Your task to perform on an android device: Search for "dell alienware" on ebay, select the first entry, add it to the cart, then select checkout. Image 0: 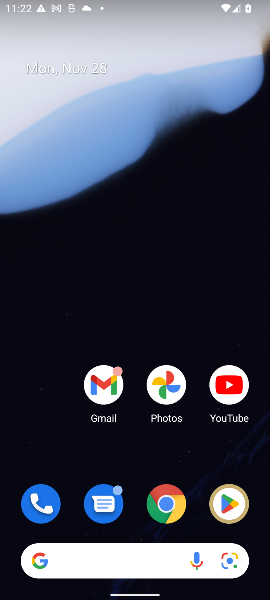
Step 0: click (166, 512)
Your task to perform on an android device: Search for "dell alienware" on ebay, select the first entry, add it to the cart, then select checkout. Image 1: 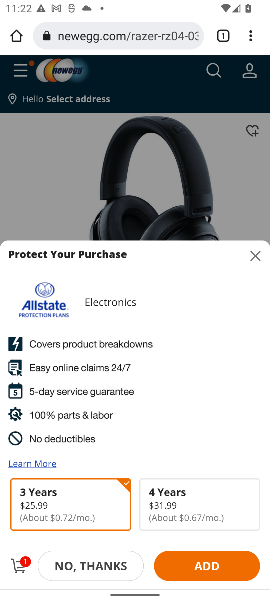
Step 1: click (107, 34)
Your task to perform on an android device: Search for "dell alienware" on ebay, select the first entry, add it to the cart, then select checkout. Image 2: 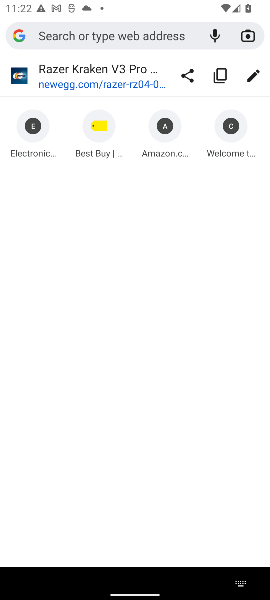
Step 2: type "ebay.com"
Your task to perform on an android device: Search for "dell alienware" on ebay, select the first entry, add it to the cart, then select checkout. Image 3: 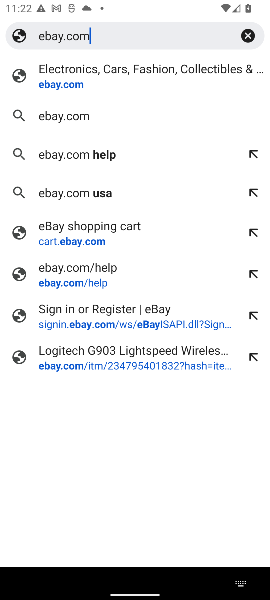
Step 3: click (63, 82)
Your task to perform on an android device: Search for "dell alienware" on ebay, select the first entry, add it to the cart, then select checkout. Image 4: 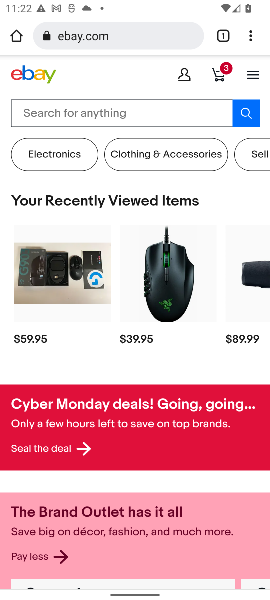
Step 4: click (35, 114)
Your task to perform on an android device: Search for "dell alienware" on ebay, select the first entry, add it to the cart, then select checkout. Image 5: 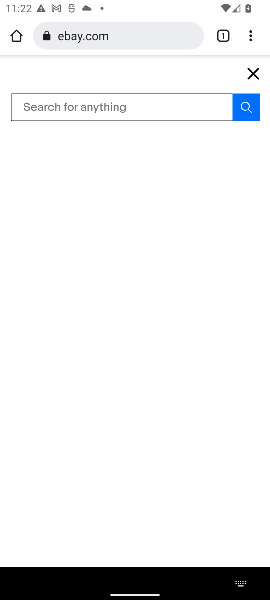
Step 5: type "dell alienware"
Your task to perform on an android device: Search for "dell alienware" on ebay, select the first entry, add it to the cart, then select checkout. Image 6: 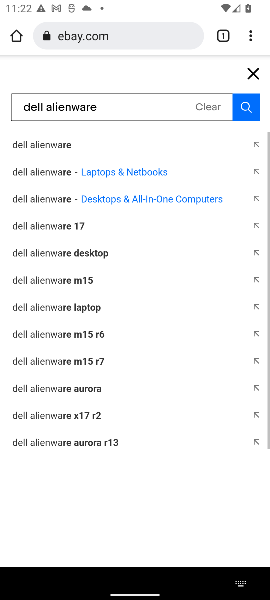
Step 6: click (34, 149)
Your task to perform on an android device: Search for "dell alienware" on ebay, select the first entry, add it to the cart, then select checkout. Image 7: 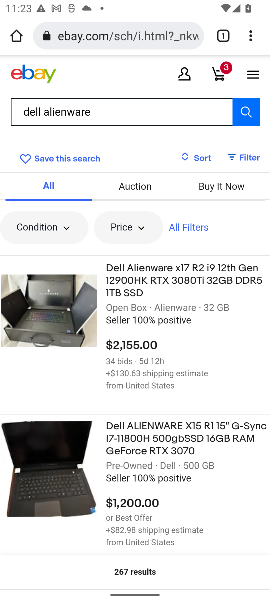
Step 7: click (116, 284)
Your task to perform on an android device: Search for "dell alienware" on ebay, select the first entry, add it to the cart, then select checkout. Image 8: 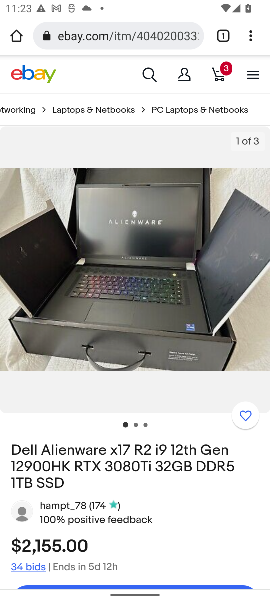
Step 8: task complete